Your task to perform on an android device: Toggle the flashlight Image 0: 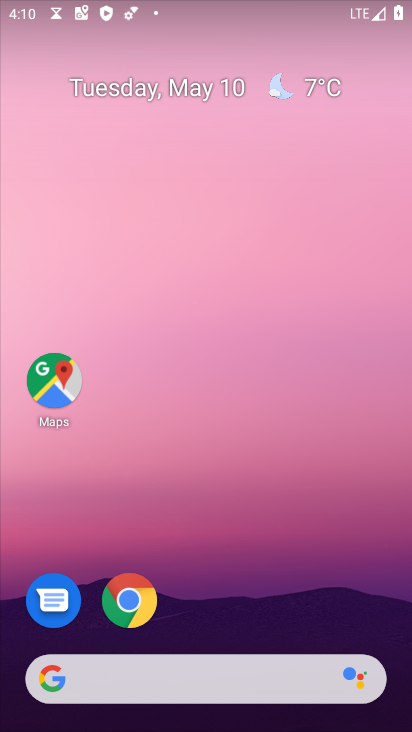
Step 0: drag from (225, 619) to (232, 390)
Your task to perform on an android device: Toggle the flashlight Image 1: 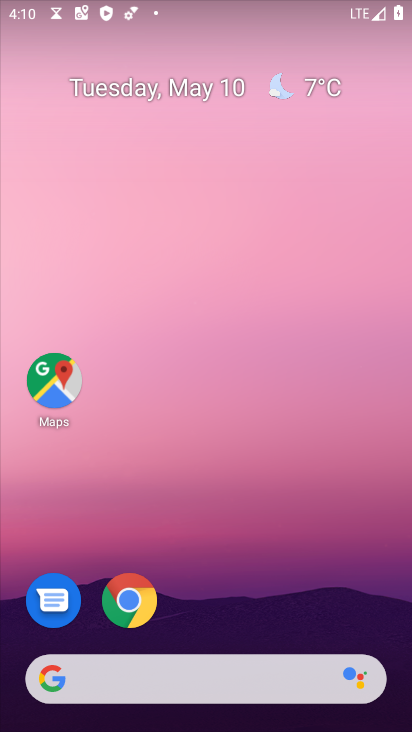
Step 1: drag from (279, 516) to (298, 62)
Your task to perform on an android device: Toggle the flashlight Image 2: 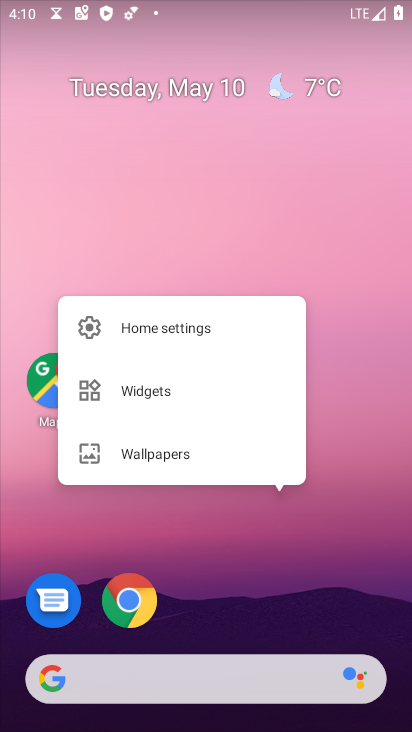
Step 2: click (279, 431)
Your task to perform on an android device: Toggle the flashlight Image 3: 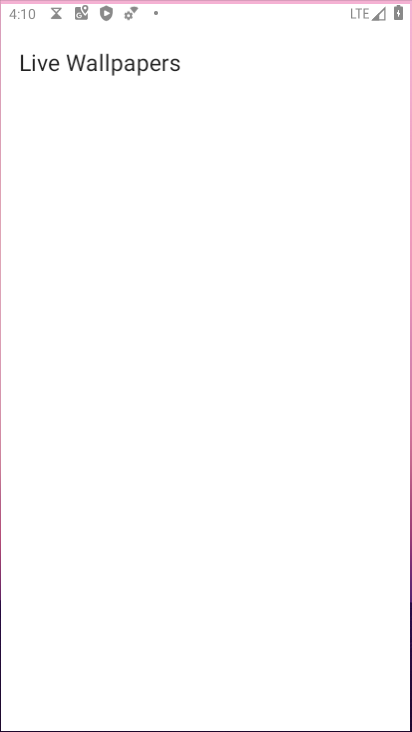
Step 3: click (327, 410)
Your task to perform on an android device: Toggle the flashlight Image 4: 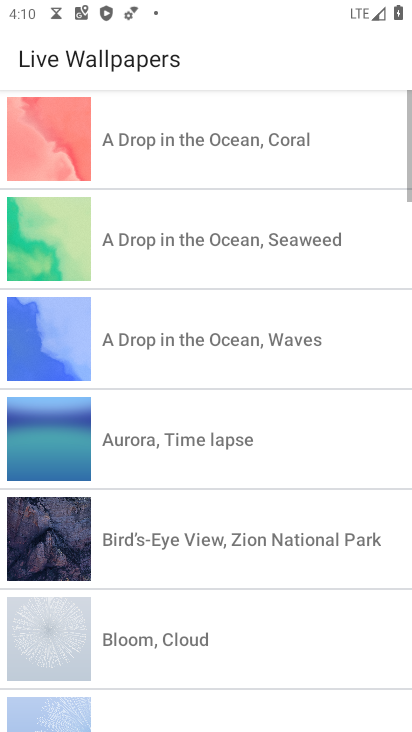
Step 4: task complete